Your task to perform on an android device: Open sound settings Image 0: 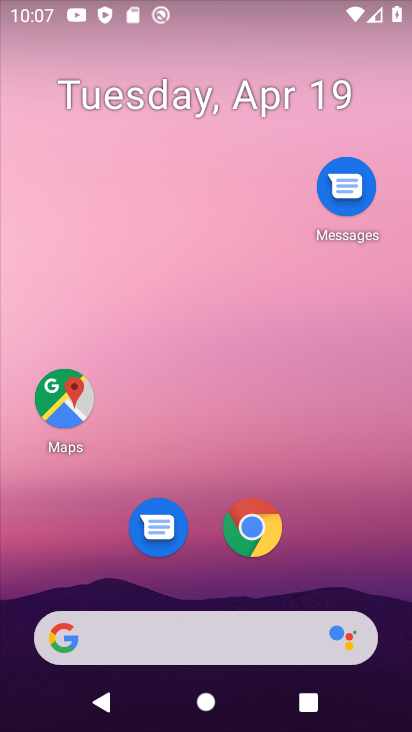
Step 0: click (323, 182)
Your task to perform on an android device: Open sound settings Image 1: 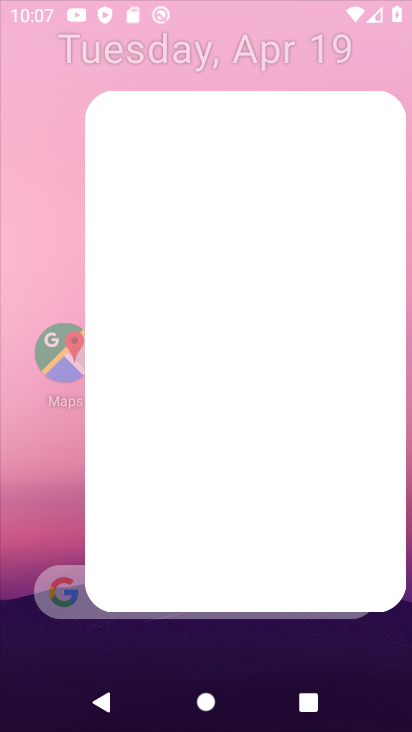
Step 1: click (272, 429)
Your task to perform on an android device: Open sound settings Image 2: 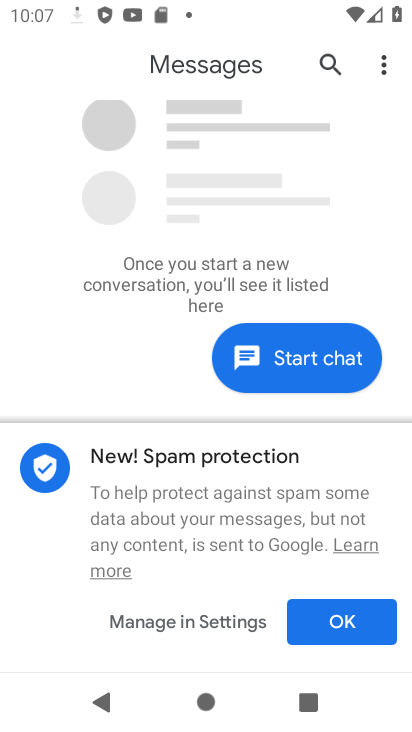
Step 2: press home button
Your task to perform on an android device: Open sound settings Image 3: 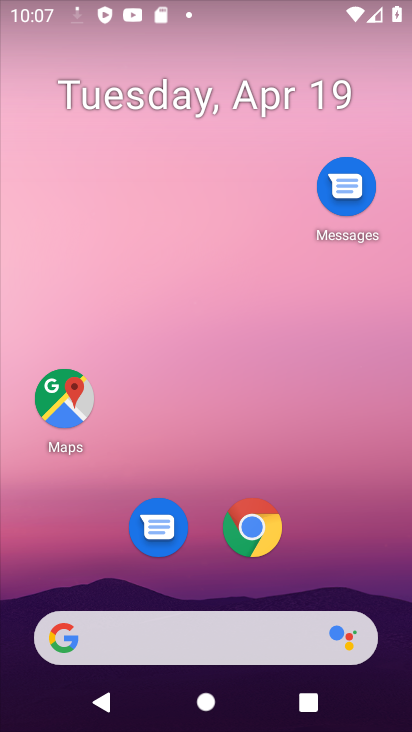
Step 3: drag from (352, 321) to (355, 61)
Your task to perform on an android device: Open sound settings Image 4: 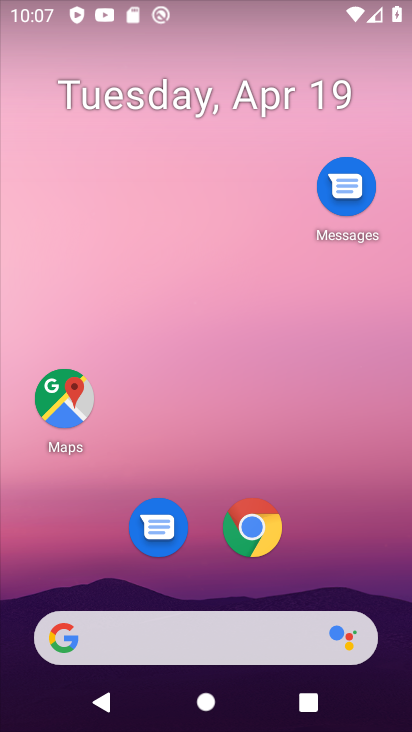
Step 4: drag from (293, 547) to (289, 241)
Your task to perform on an android device: Open sound settings Image 5: 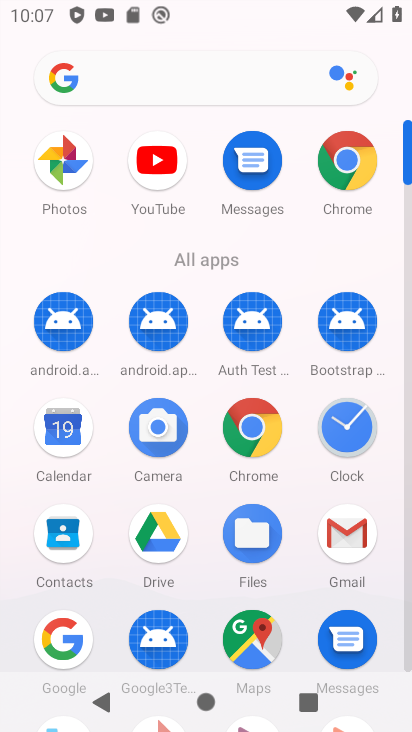
Step 5: drag from (198, 615) to (239, 236)
Your task to perform on an android device: Open sound settings Image 6: 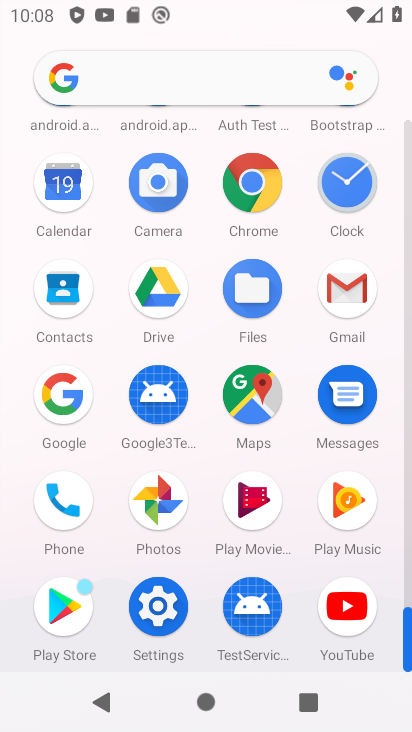
Step 6: click (166, 617)
Your task to perform on an android device: Open sound settings Image 7: 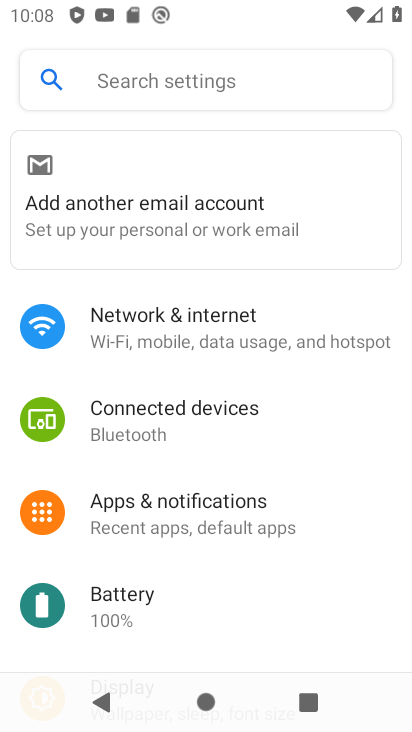
Step 7: drag from (199, 580) to (220, 337)
Your task to perform on an android device: Open sound settings Image 8: 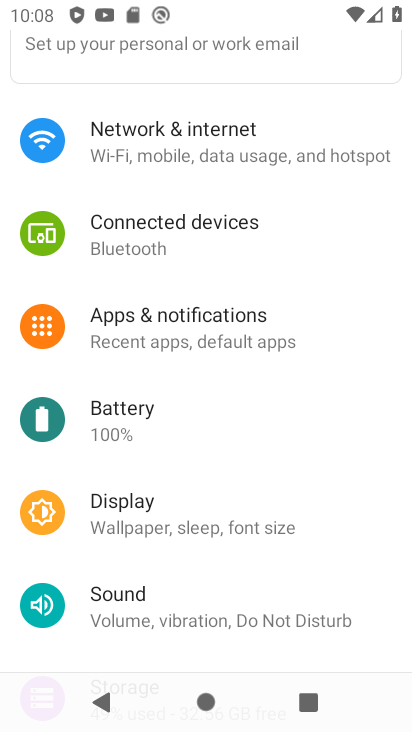
Step 8: click (183, 605)
Your task to perform on an android device: Open sound settings Image 9: 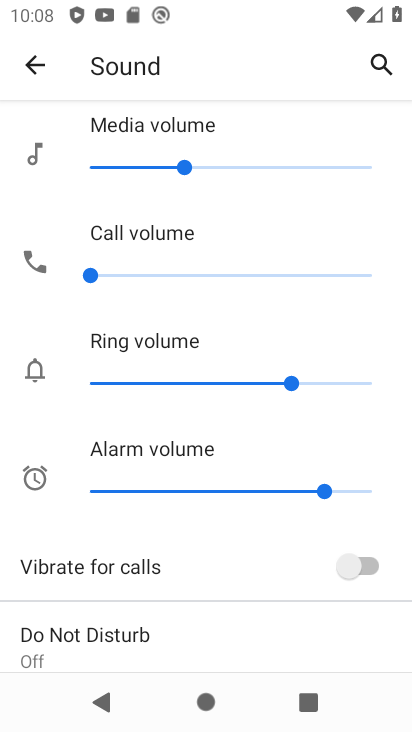
Step 9: task complete